Your task to perform on an android device: set the stopwatch Image 0: 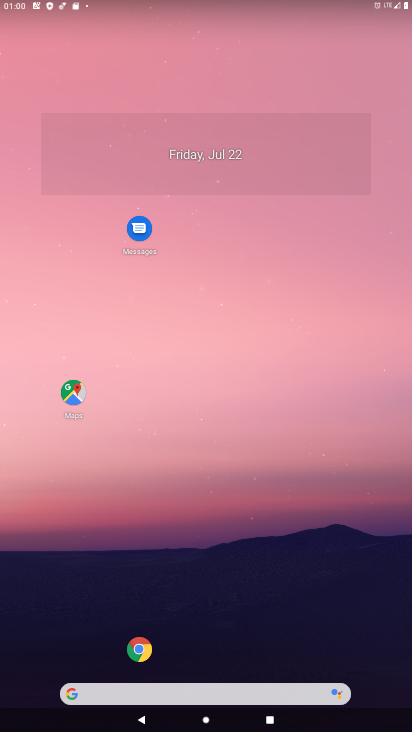
Step 0: drag from (16, 719) to (185, 208)
Your task to perform on an android device: set the stopwatch Image 1: 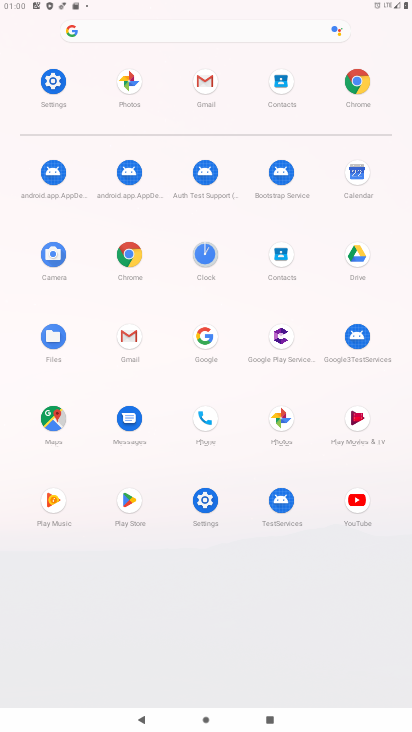
Step 1: click (207, 258)
Your task to perform on an android device: set the stopwatch Image 2: 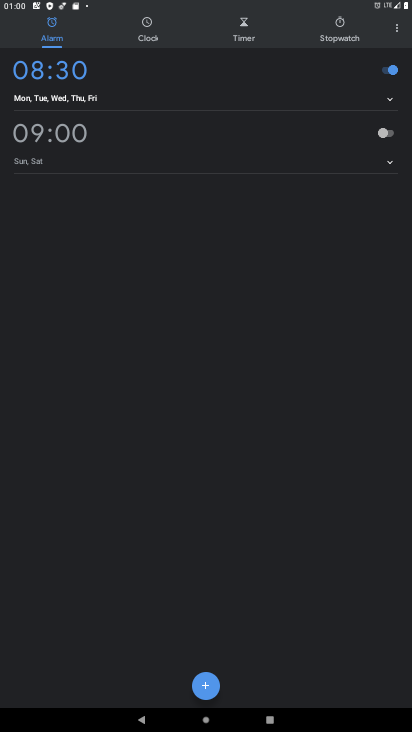
Step 2: click (332, 26)
Your task to perform on an android device: set the stopwatch Image 3: 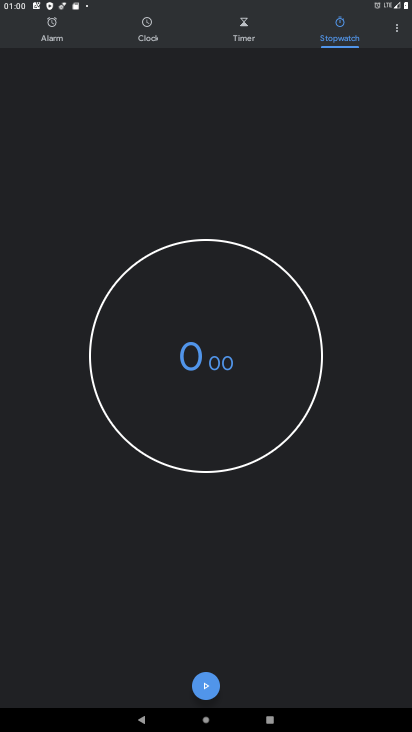
Step 3: click (206, 376)
Your task to perform on an android device: set the stopwatch Image 4: 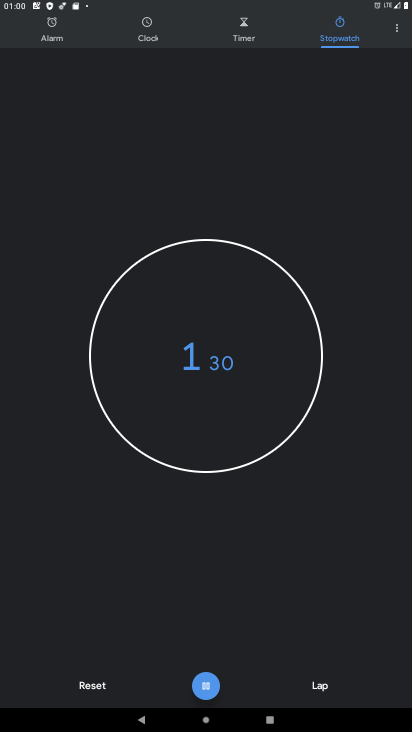
Step 4: click (208, 381)
Your task to perform on an android device: set the stopwatch Image 5: 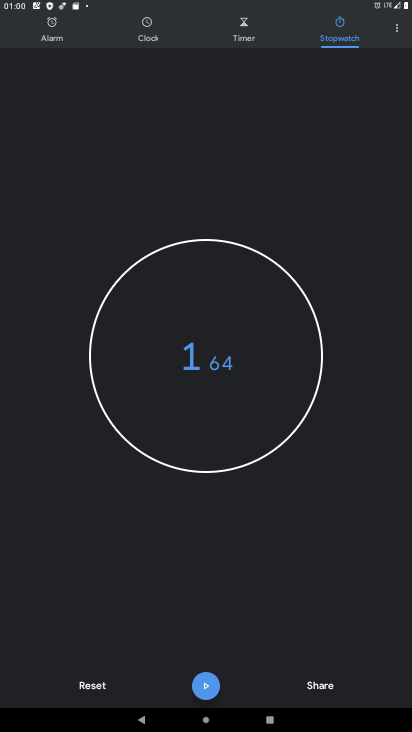
Step 5: task complete